Your task to perform on an android device: Open the Play Movies app and select the watchlist tab. Image 0: 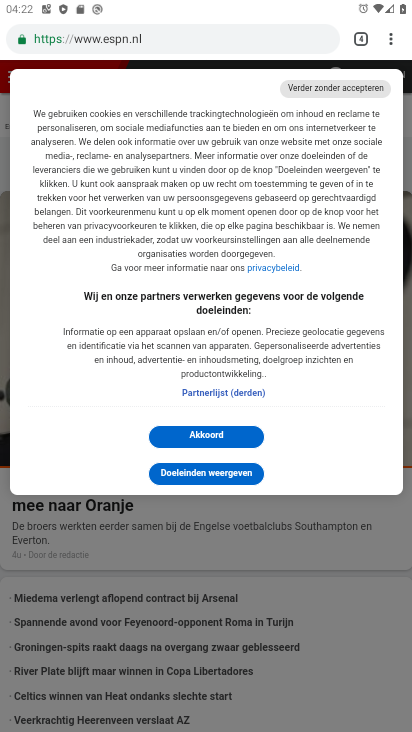
Step 0: press home button
Your task to perform on an android device: Open the Play Movies app and select the watchlist tab. Image 1: 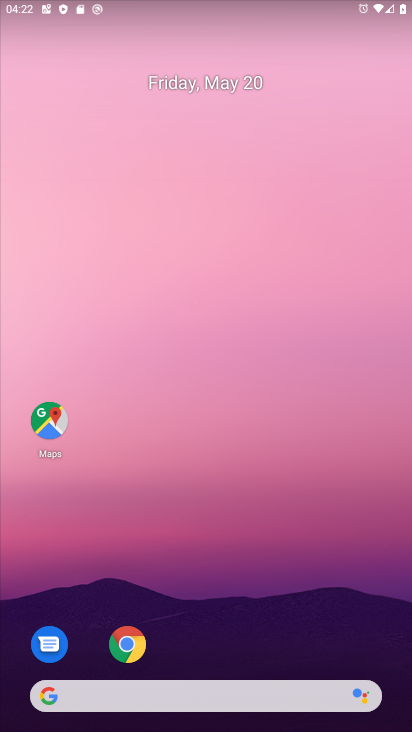
Step 1: drag from (239, 662) to (209, 113)
Your task to perform on an android device: Open the Play Movies app and select the watchlist tab. Image 2: 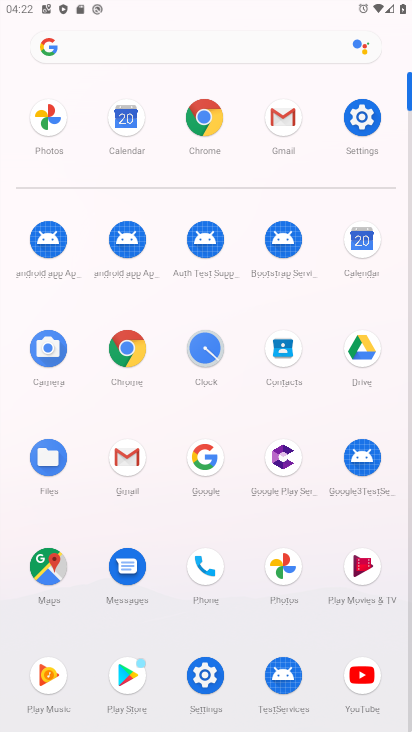
Step 2: click (378, 567)
Your task to perform on an android device: Open the Play Movies app and select the watchlist tab. Image 3: 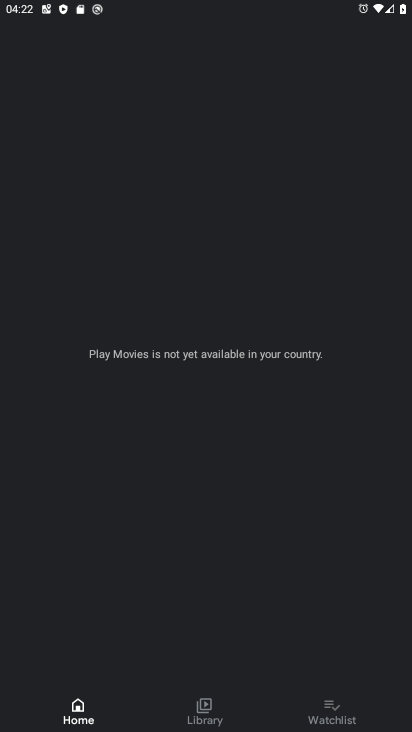
Step 3: click (373, 689)
Your task to perform on an android device: Open the Play Movies app and select the watchlist tab. Image 4: 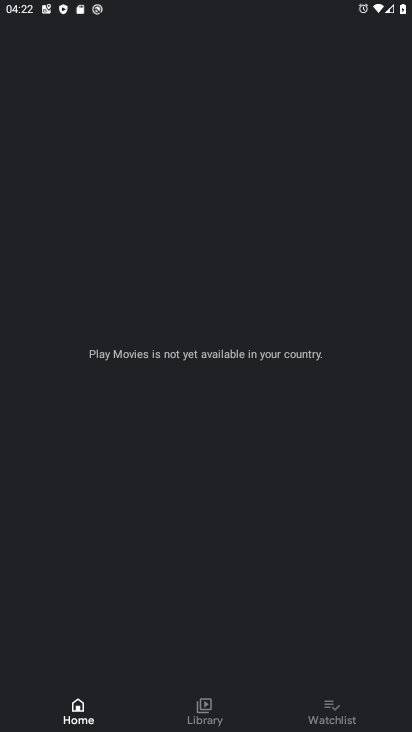
Step 4: click (347, 698)
Your task to perform on an android device: Open the Play Movies app and select the watchlist tab. Image 5: 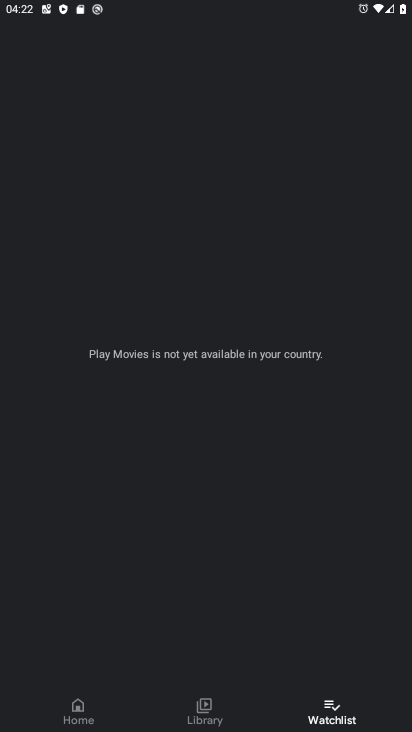
Step 5: task complete